Your task to perform on an android device: Open calendar and show me the first week of next month Image 0: 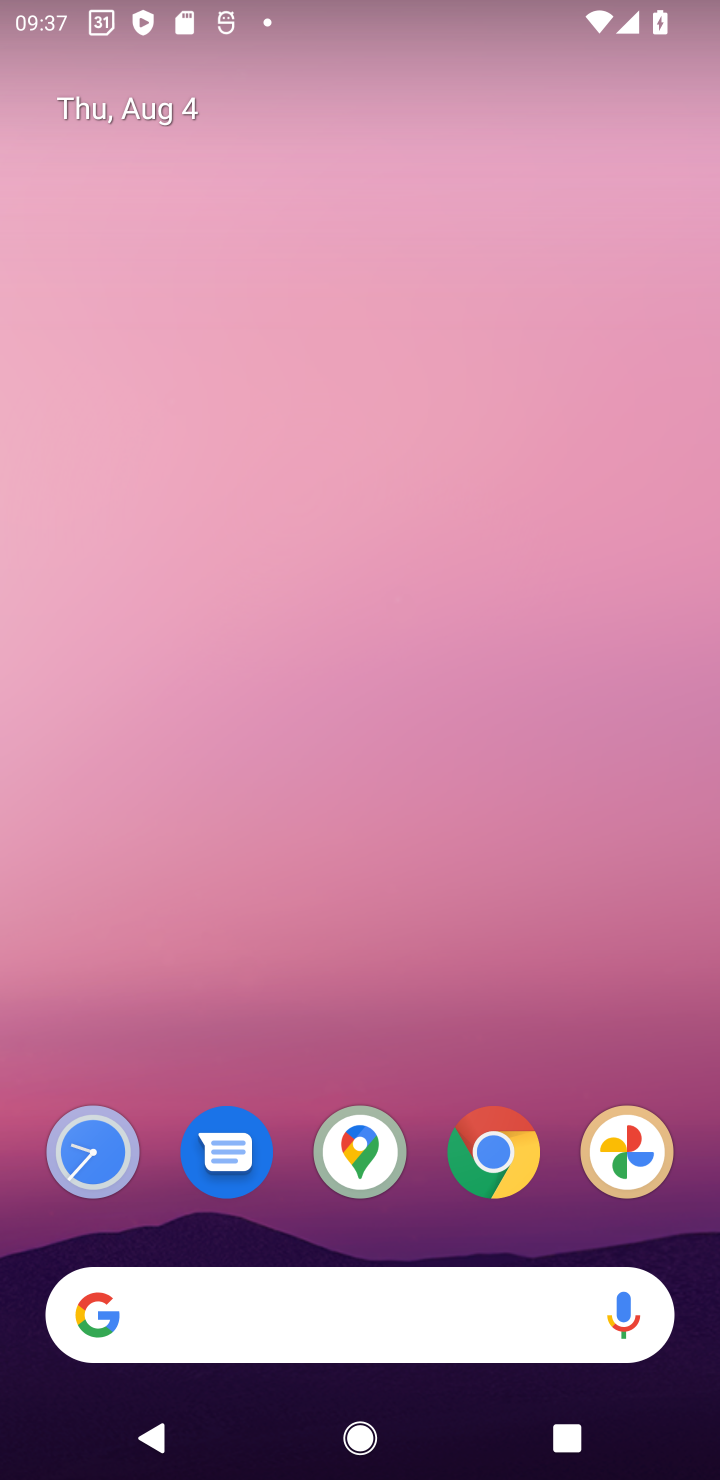
Step 0: press home button
Your task to perform on an android device: Open calendar and show me the first week of next month Image 1: 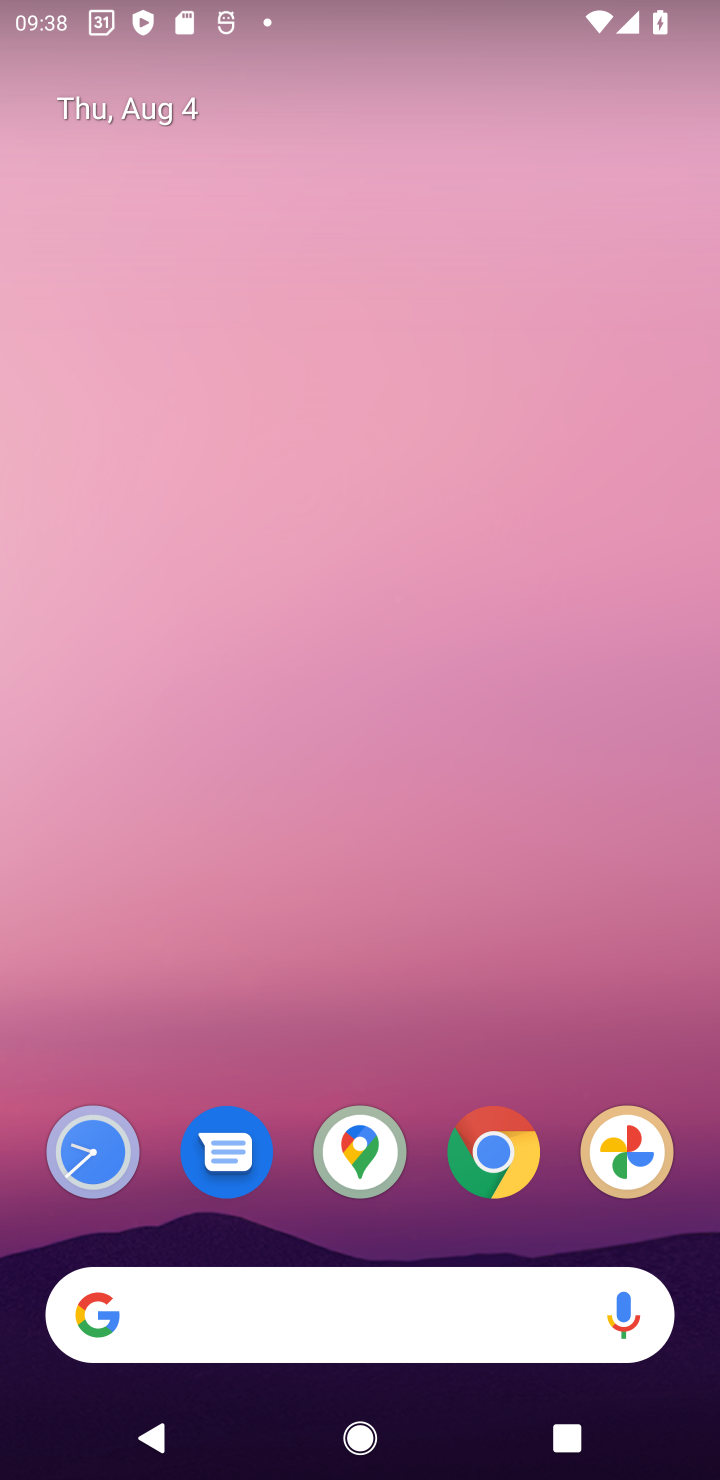
Step 1: drag from (192, 572) to (363, 63)
Your task to perform on an android device: Open calendar and show me the first week of next month Image 2: 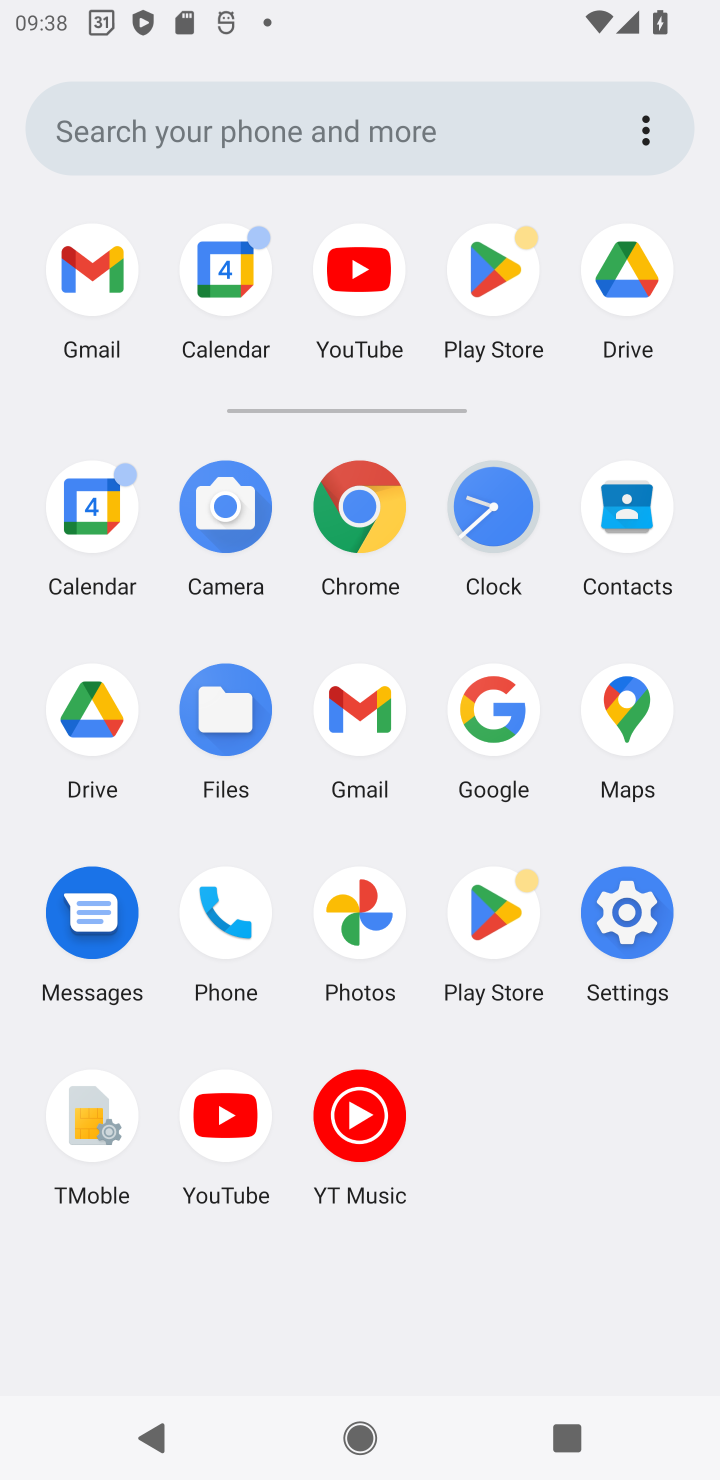
Step 2: click (69, 516)
Your task to perform on an android device: Open calendar and show me the first week of next month Image 3: 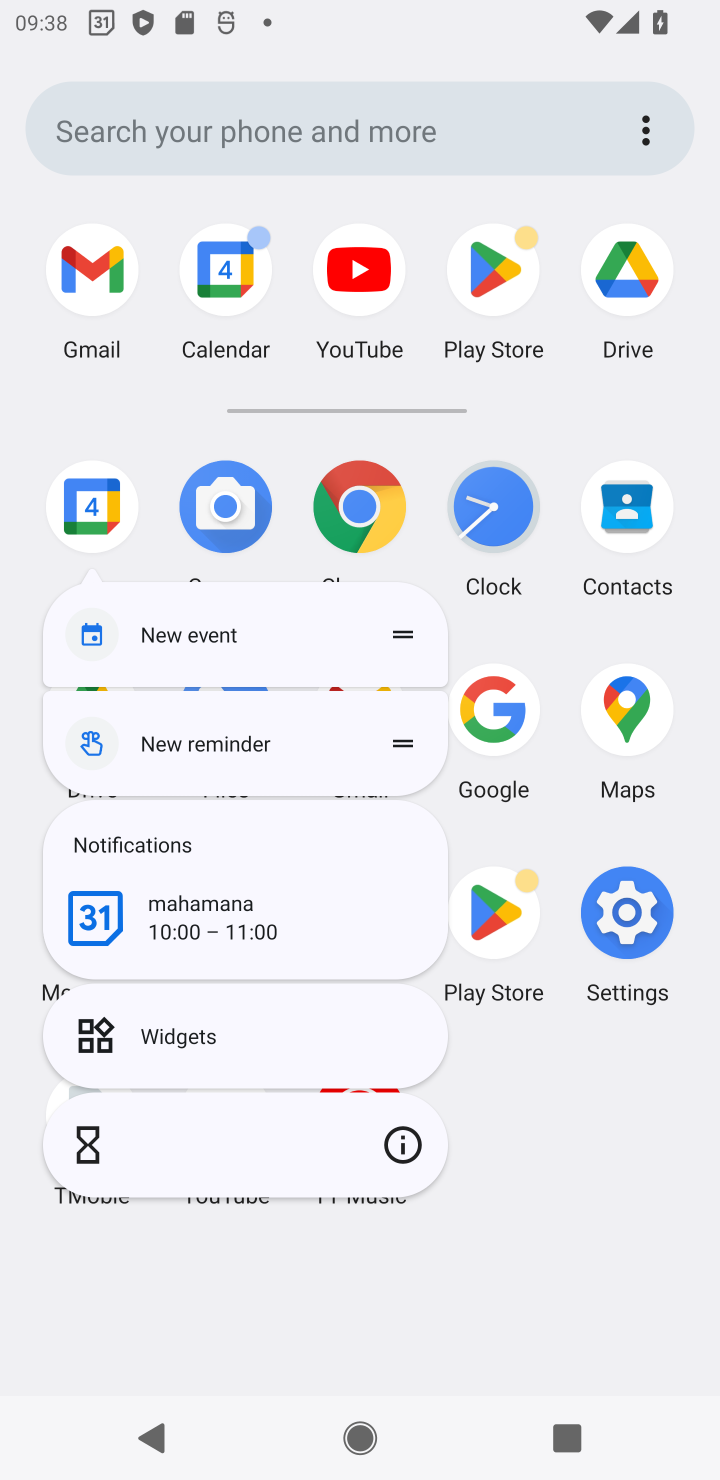
Step 3: click (83, 498)
Your task to perform on an android device: Open calendar and show me the first week of next month Image 4: 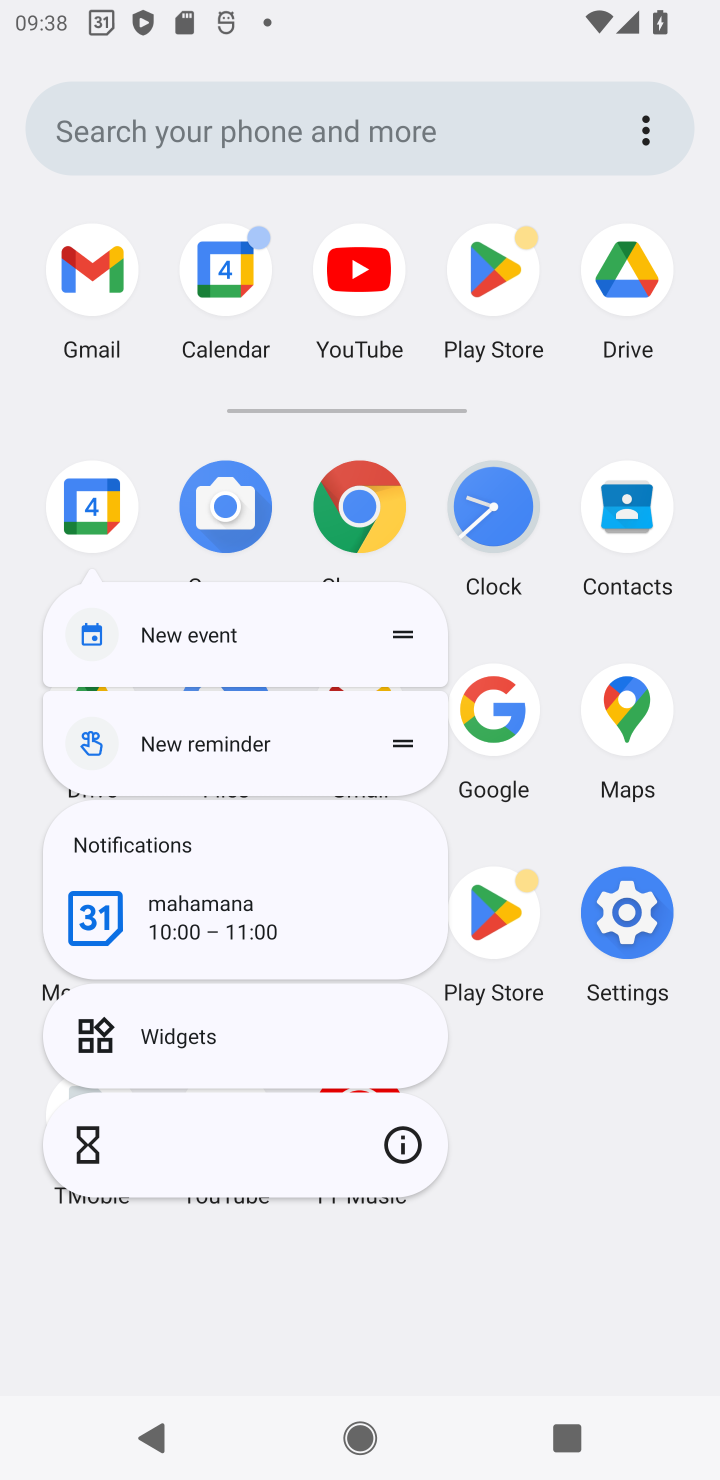
Step 4: click (83, 498)
Your task to perform on an android device: Open calendar and show me the first week of next month Image 5: 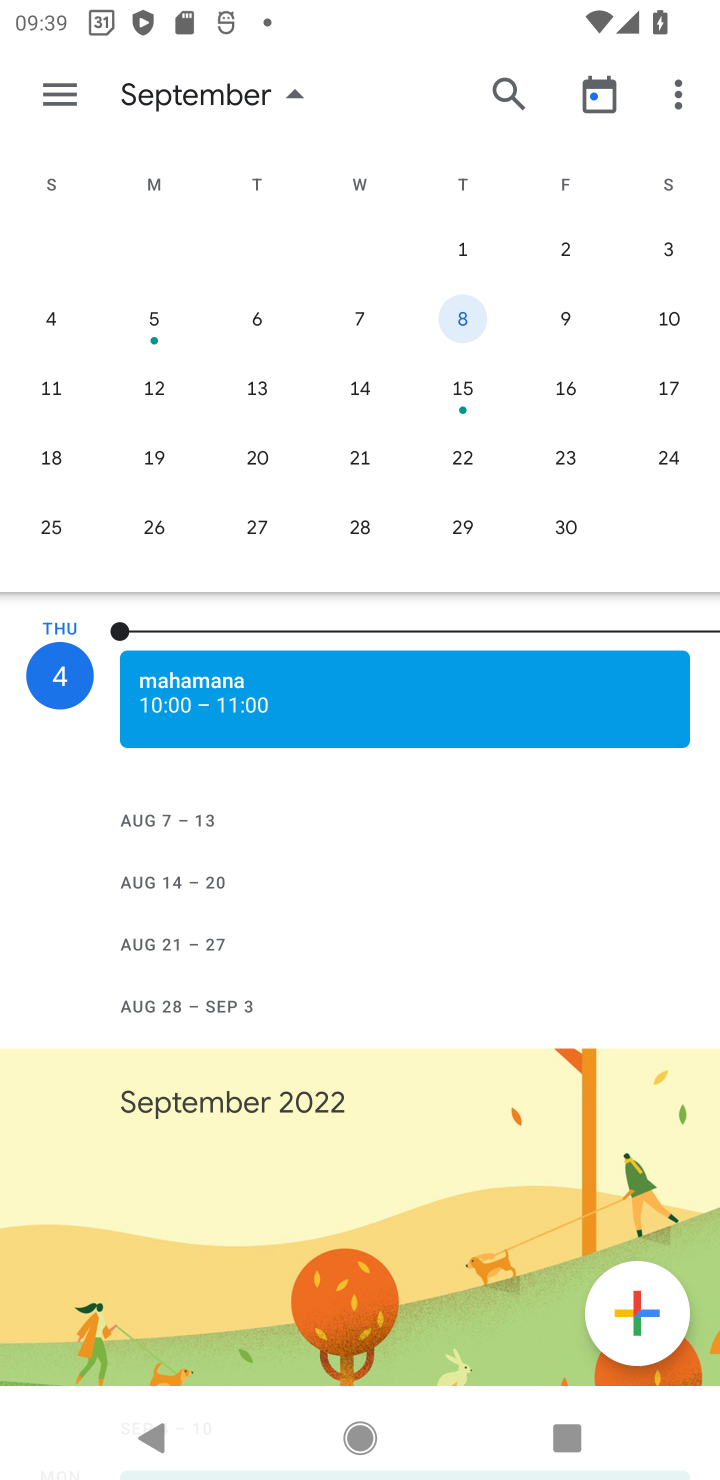
Step 5: drag from (69, 422) to (671, 1108)
Your task to perform on an android device: Open calendar and show me the first week of next month Image 6: 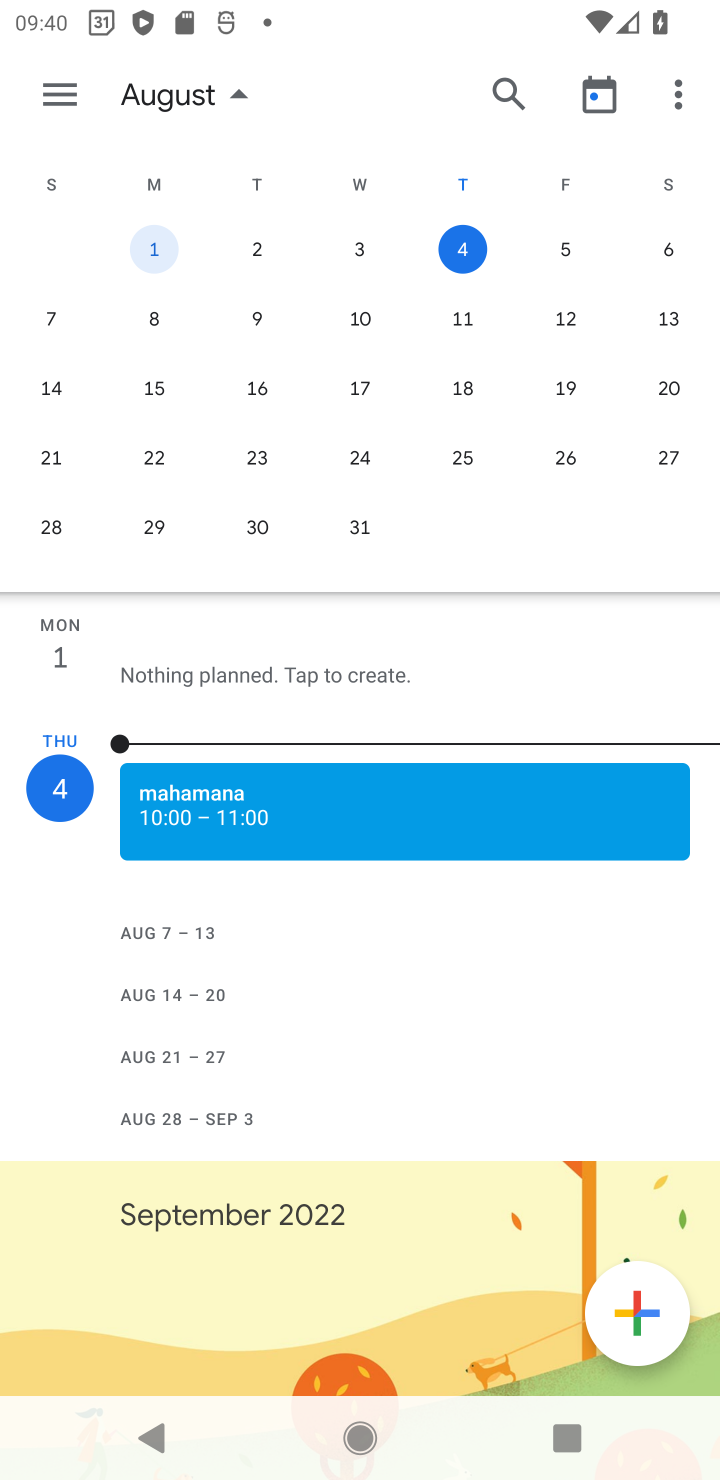
Step 6: drag from (714, 487) to (44, 432)
Your task to perform on an android device: Open calendar and show me the first week of next month Image 7: 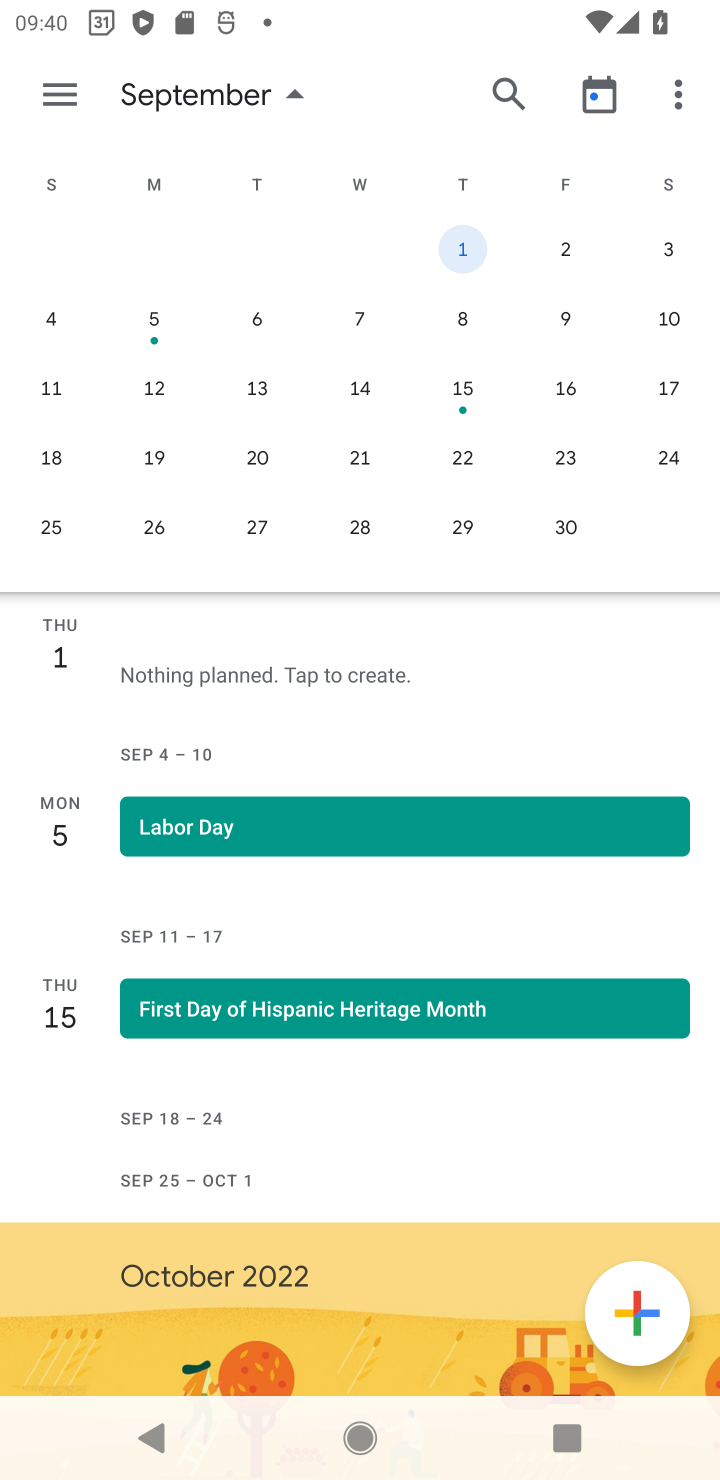
Step 7: drag from (694, 370) to (20, 266)
Your task to perform on an android device: Open calendar and show me the first week of next month Image 8: 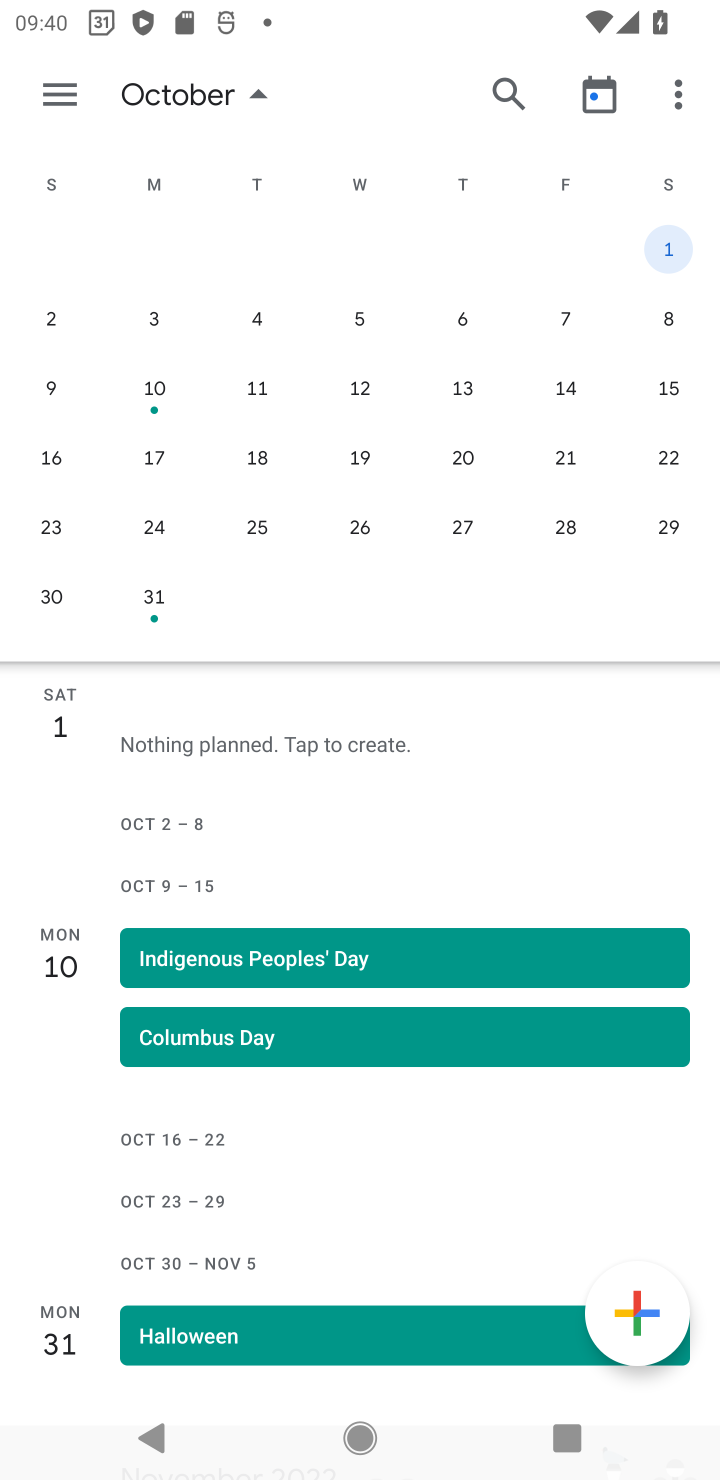
Step 8: drag from (154, 506) to (695, 615)
Your task to perform on an android device: Open calendar and show me the first week of next month Image 9: 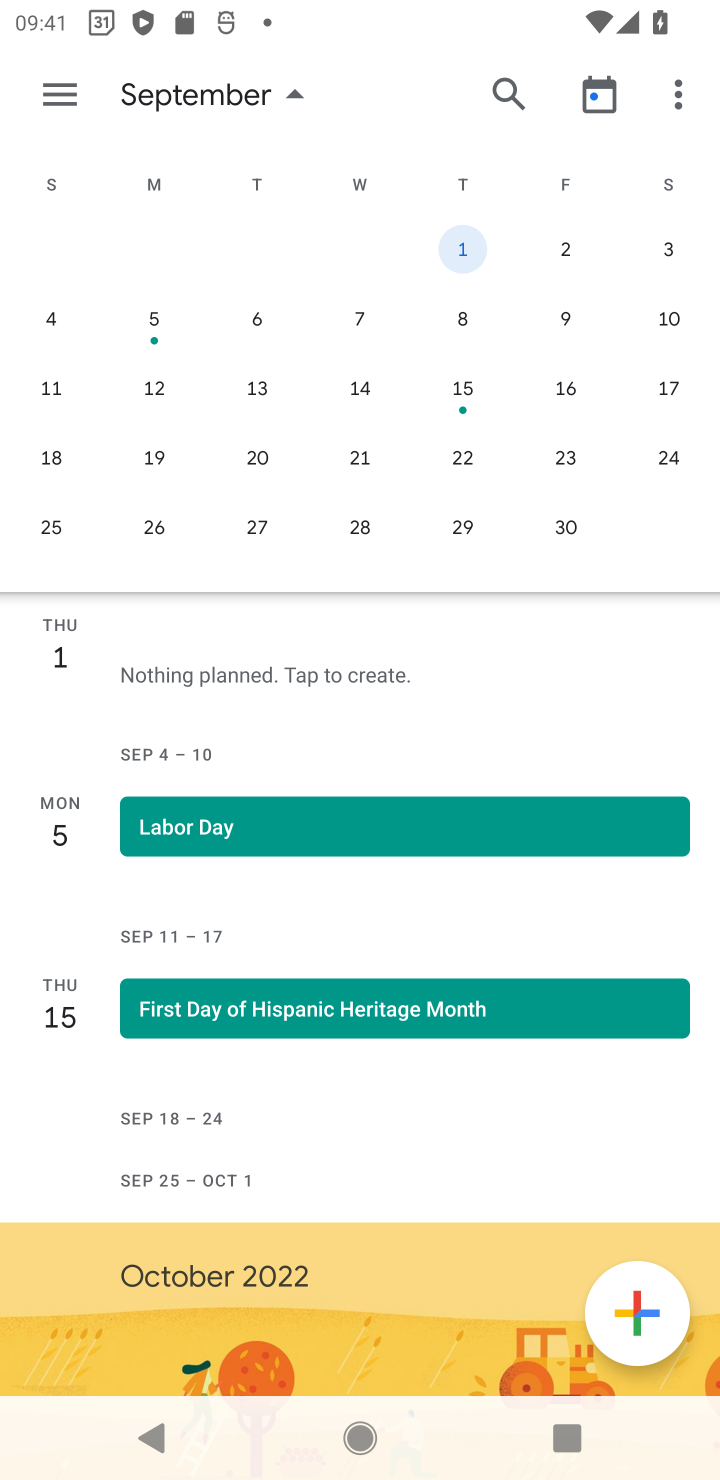
Step 9: click (558, 251)
Your task to perform on an android device: Open calendar and show me the first week of next month Image 10: 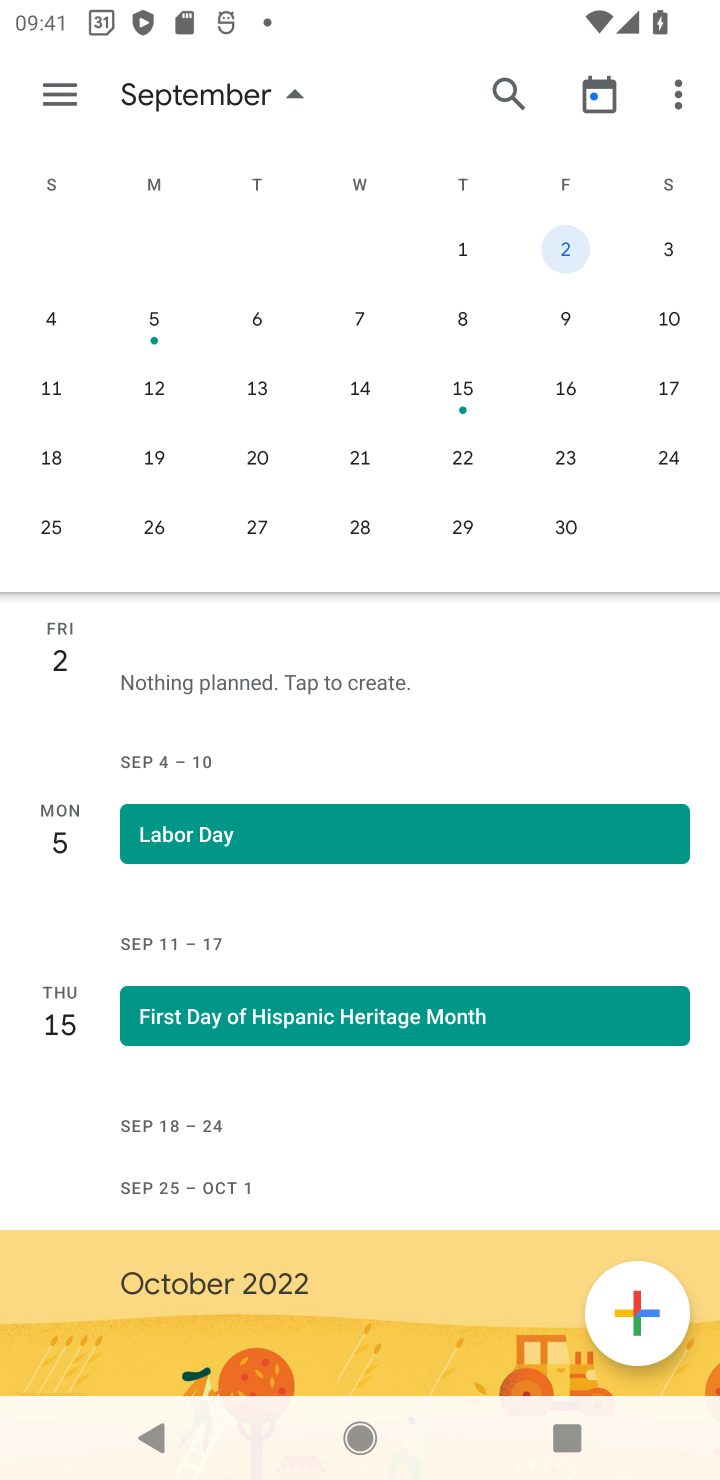
Step 10: click (45, 335)
Your task to perform on an android device: Open calendar and show me the first week of next month Image 11: 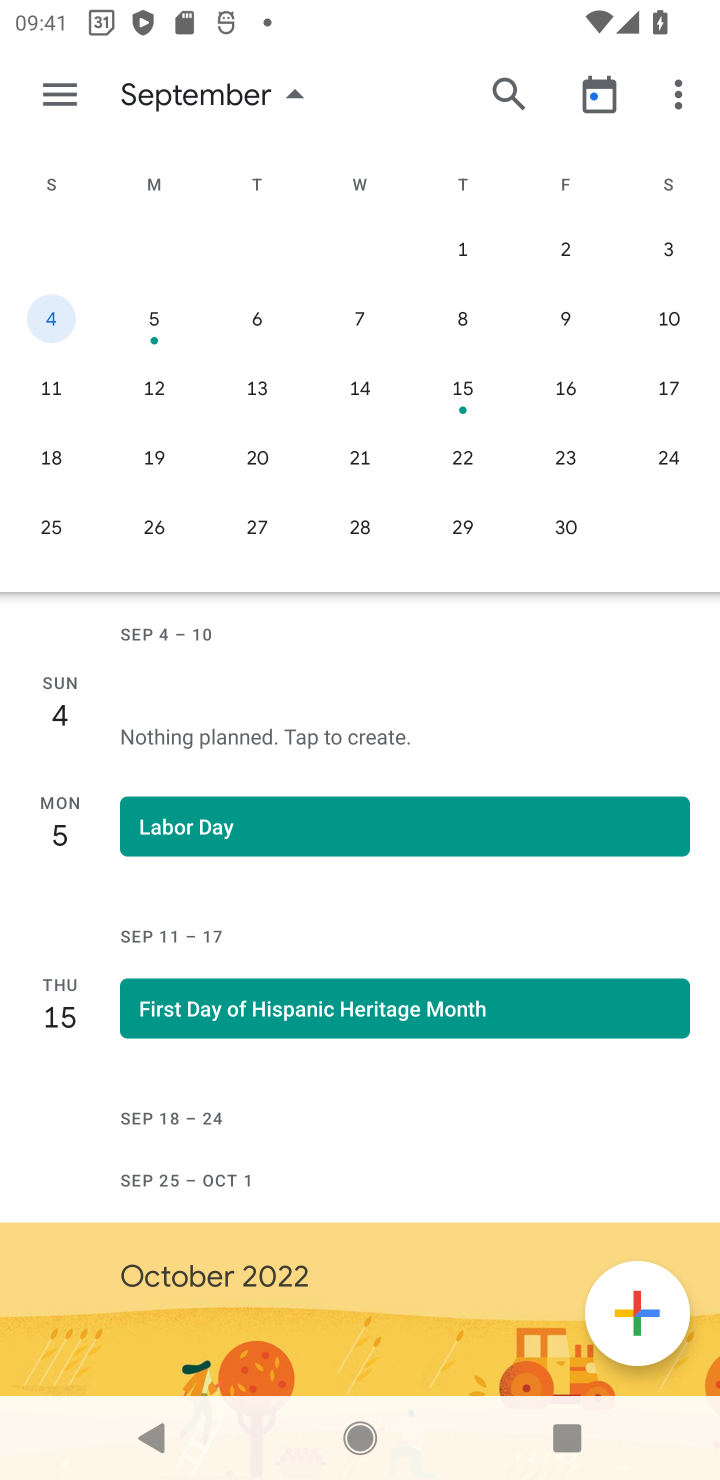
Step 11: click (159, 332)
Your task to perform on an android device: Open calendar and show me the first week of next month Image 12: 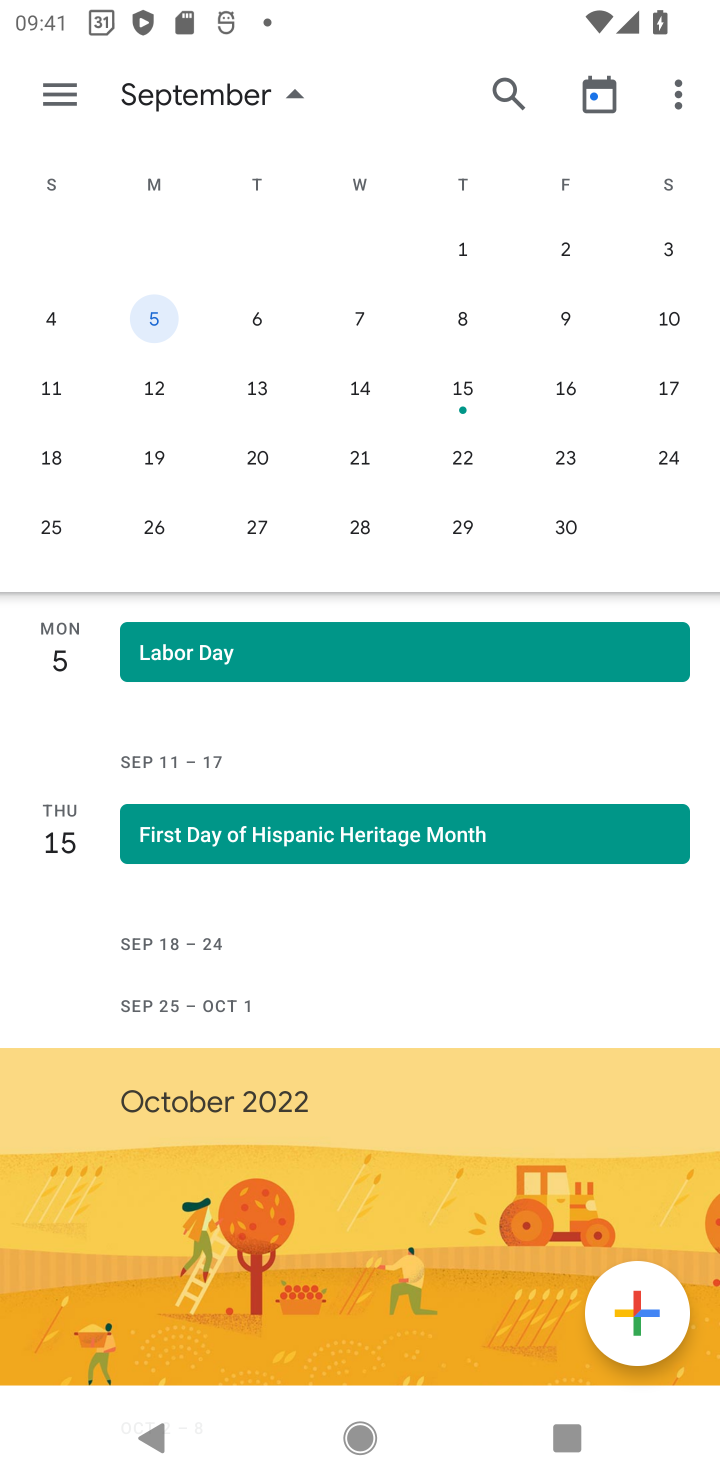
Step 12: task complete